Your task to perform on an android device: turn on location history Image 0: 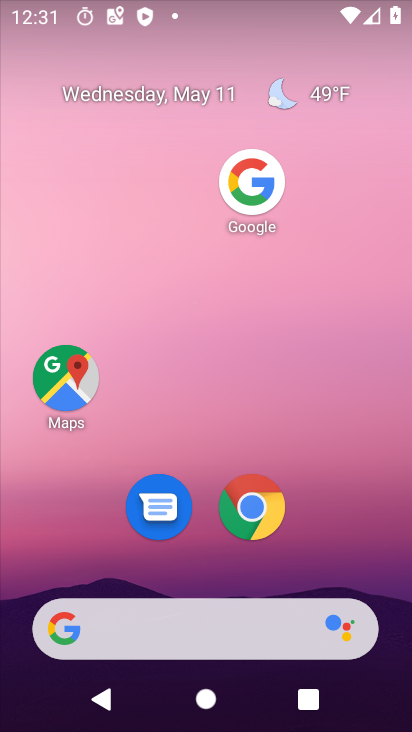
Step 0: drag from (198, 560) to (171, 78)
Your task to perform on an android device: turn on location history Image 1: 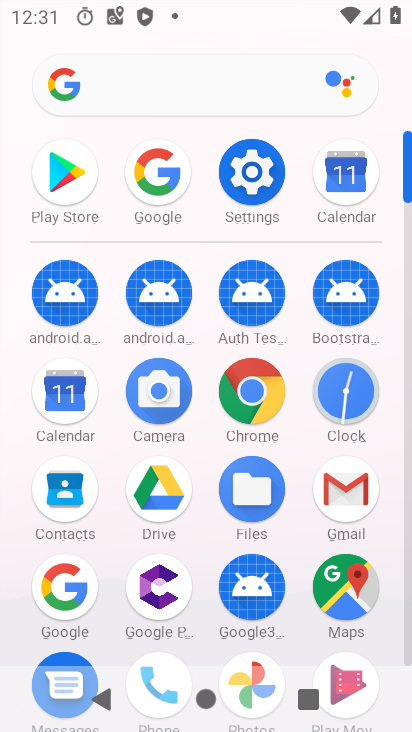
Step 1: click (259, 161)
Your task to perform on an android device: turn on location history Image 2: 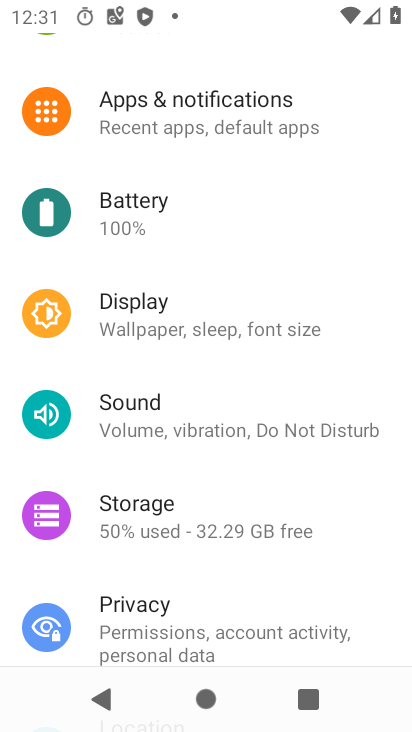
Step 2: drag from (249, 577) to (239, 348)
Your task to perform on an android device: turn on location history Image 3: 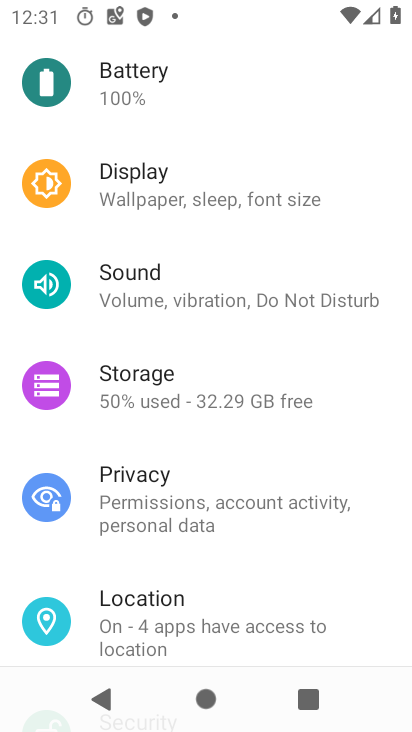
Step 3: click (189, 619)
Your task to perform on an android device: turn on location history Image 4: 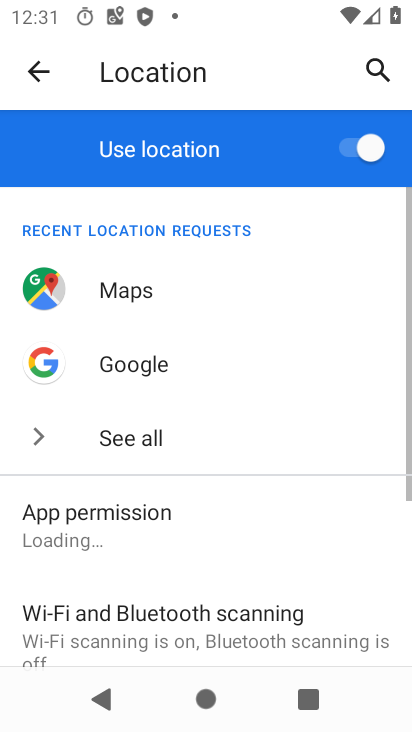
Step 4: drag from (250, 564) to (222, 149)
Your task to perform on an android device: turn on location history Image 5: 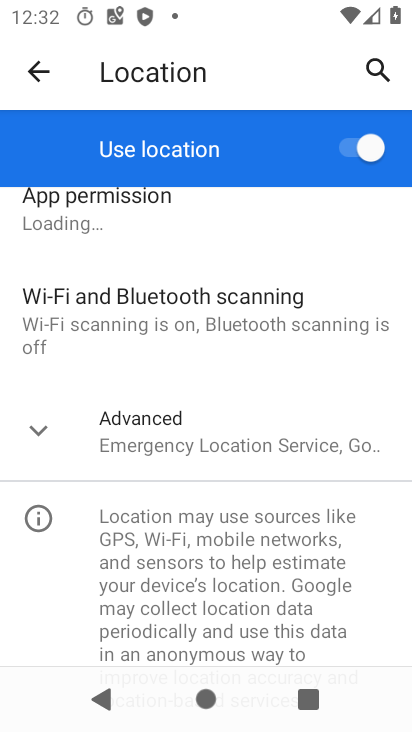
Step 5: click (133, 433)
Your task to perform on an android device: turn on location history Image 6: 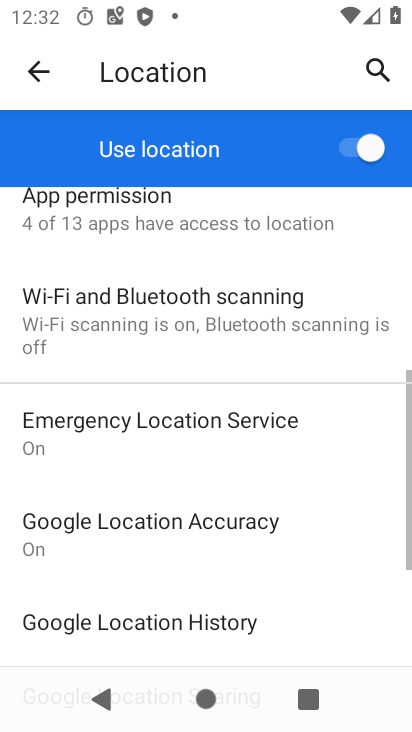
Step 6: drag from (263, 554) to (247, 369)
Your task to perform on an android device: turn on location history Image 7: 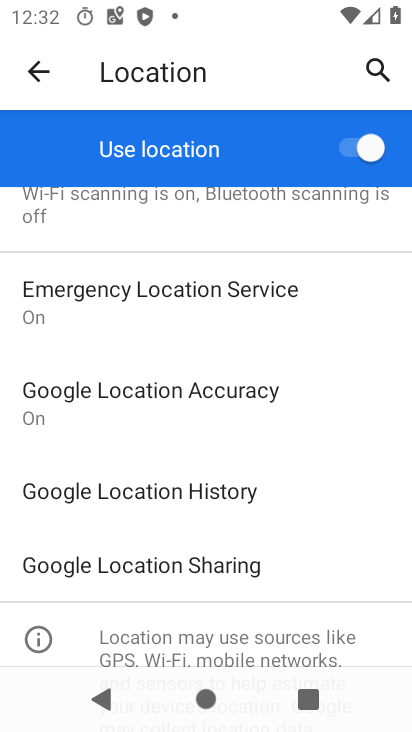
Step 7: click (190, 487)
Your task to perform on an android device: turn on location history Image 8: 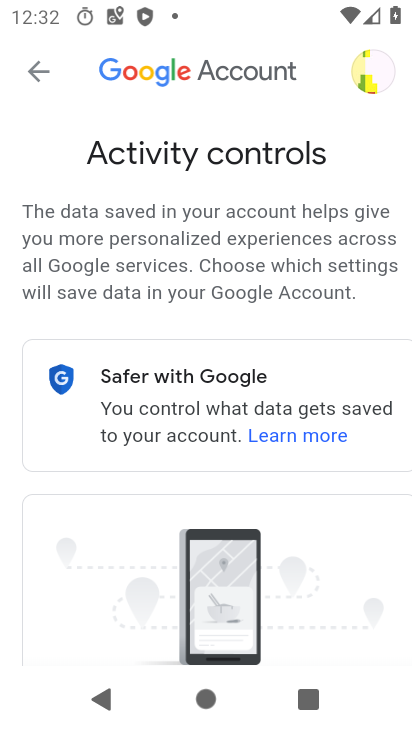
Step 8: drag from (288, 596) to (273, 87)
Your task to perform on an android device: turn on location history Image 9: 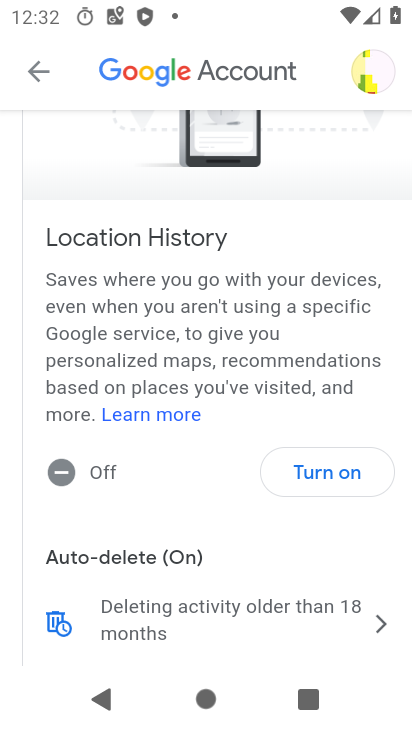
Step 9: click (322, 476)
Your task to perform on an android device: turn on location history Image 10: 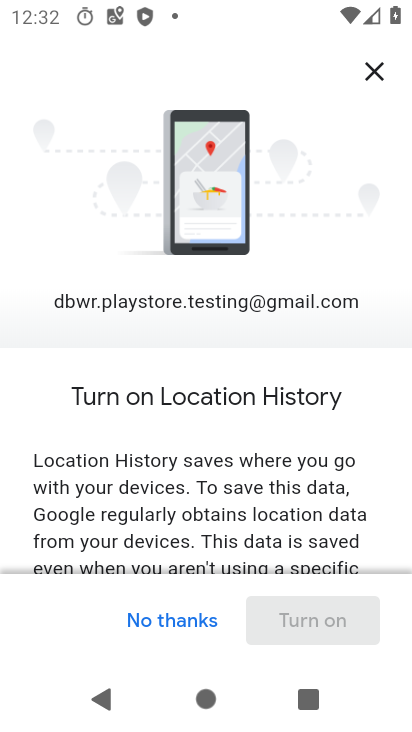
Step 10: drag from (310, 497) to (293, 26)
Your task to perform on an android device: turn on location history Image 11: 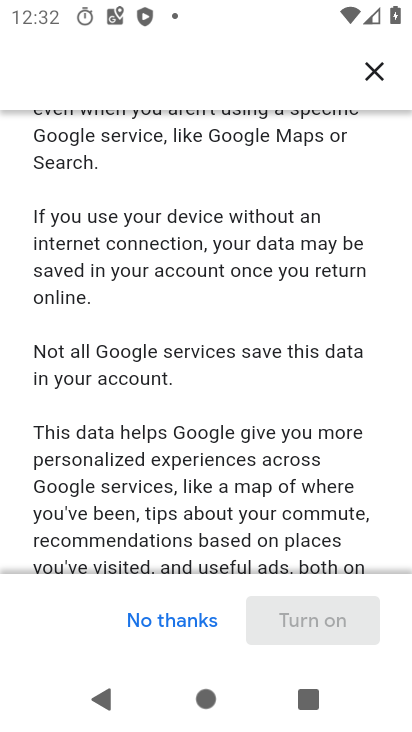
Step 11: drag from (311, 478) to (301, 31)
Your task to perform on an android device: turn on location history Image 12: 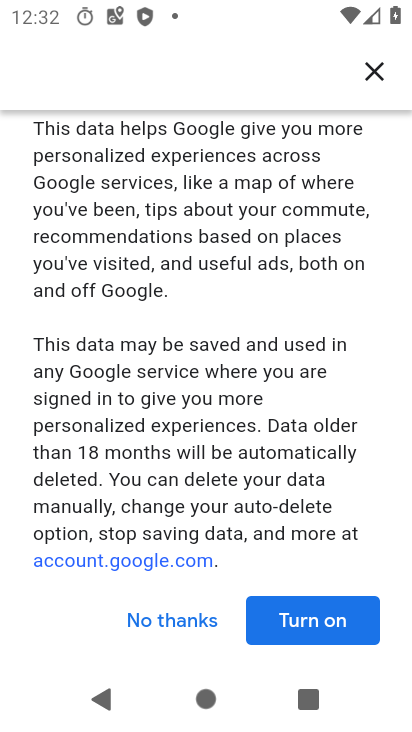
Step 12: click (298, 620)
Your task to perform on an android device: turn on location history Image 13: 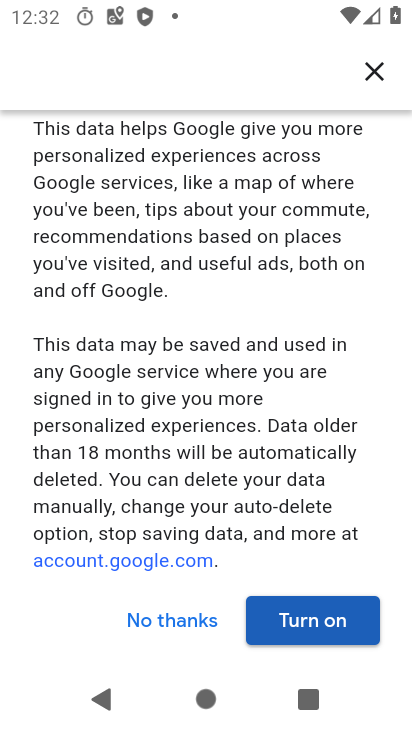
Step 13: click (321, 619)
Your task to perform on an android device: turn on location history Image 14: 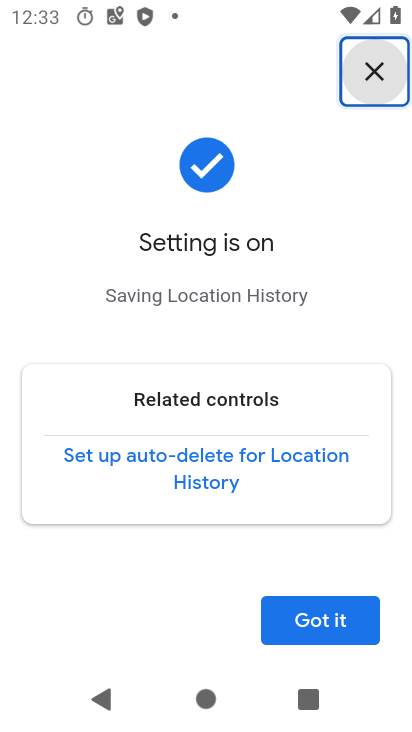
Step 14: task complete